Your task to perform on an android device: Go to Wikipedia Image 0: 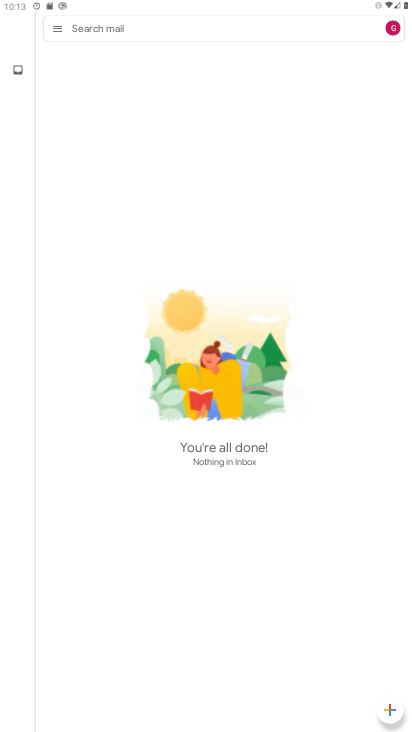
Step 0: press home button
Your task to perform on an android device: Go to Wikipedia Image 1: 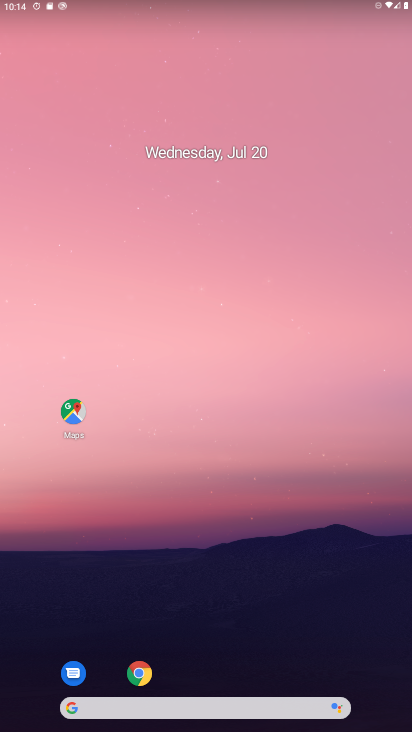
Step 1: drag from (307, 462) to (161, 60)
Your task to perform on an android device: Go to Wikipedia Image 2: 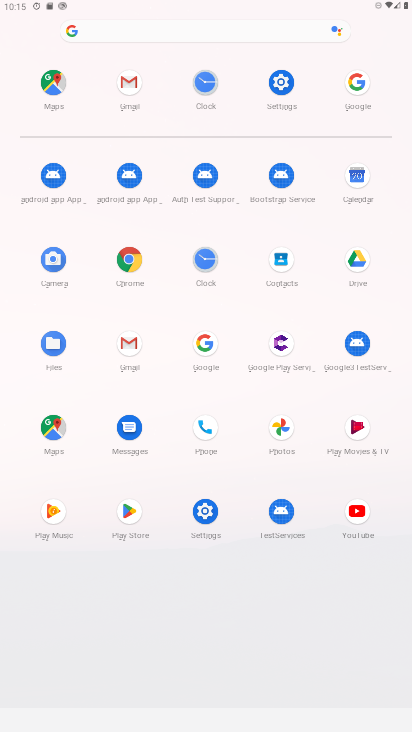
Step 2: click (209, 343)
Your task to perform on an android device: Go to Wikipedia Image 3: 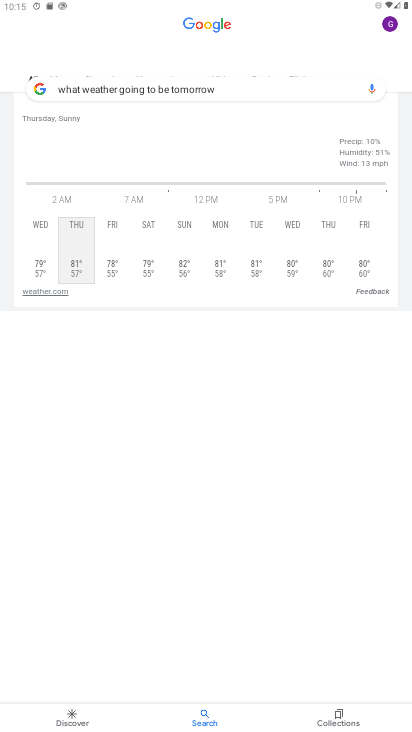
Step 3: press back button
Your task to perform on an android device: Go to Wikipedia Image 4: 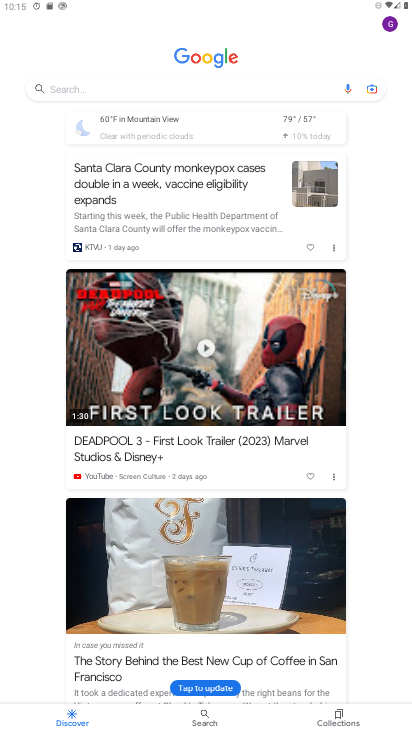
Step 4: click (108, 84)
Your task to perform on an android device: Go to Wikipedia Image 5: 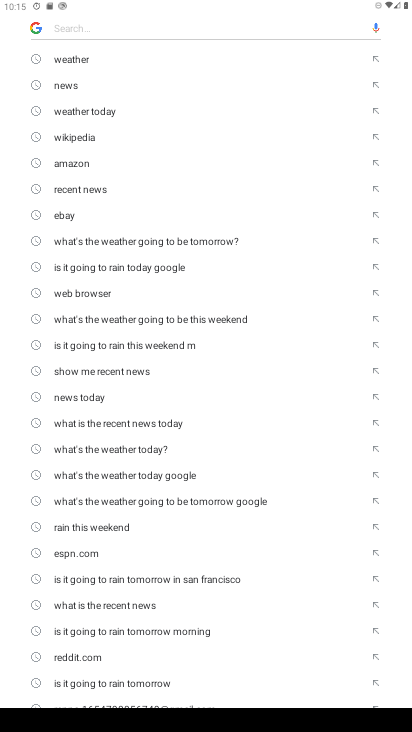
Step 5: click (69, 134)
Your task to perform on an android device: Go to Wikipedia Image 6: 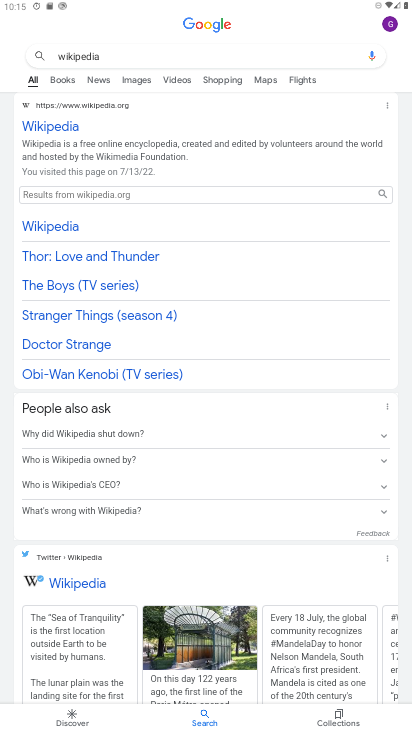
Step 6: task complete